Your task to perform on an android device: Go to wifi settings Image 0: 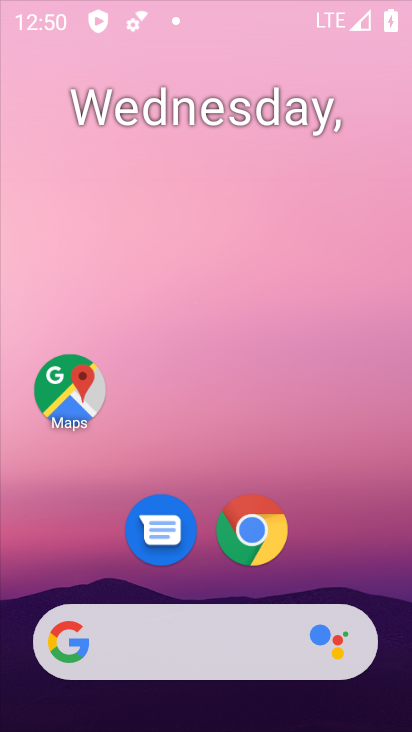
Step 0: click (318, 164)
Your task to perform on an android device: Go to wifi settings Image 1: 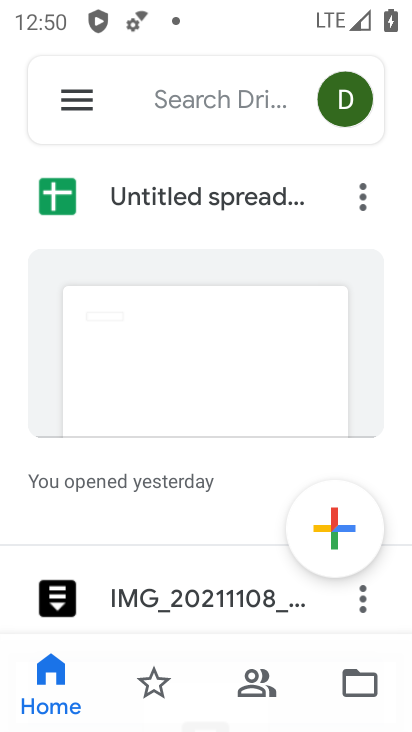
Step 1: press home button
Your task to perform on an android device: Go to wifi settings Image 2: 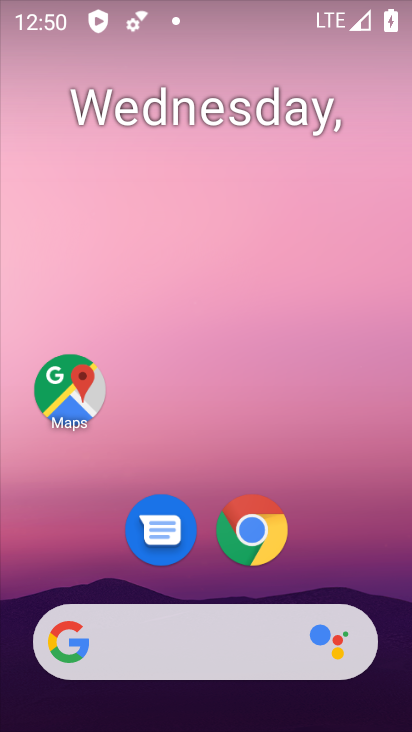
Step 2: drag from (376, 554) to (347, 177)
Your task to perform on an android device: Go to wifi settings Image 3: 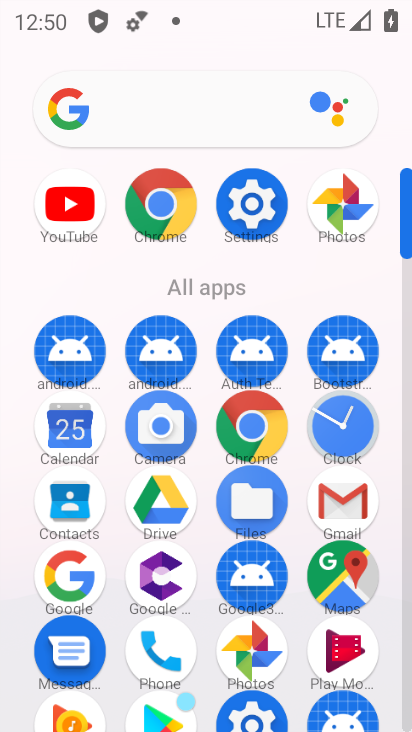
Step 3: click (249, 219)
Your task to perform on an android device: Go to wifi settings Image 4: 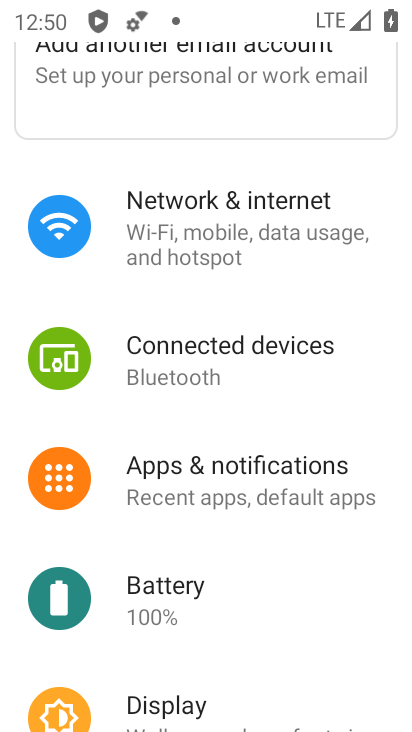
Step 4: click (195, 226)
Your task to perform on an android device: Go to wifi settings Image 5: 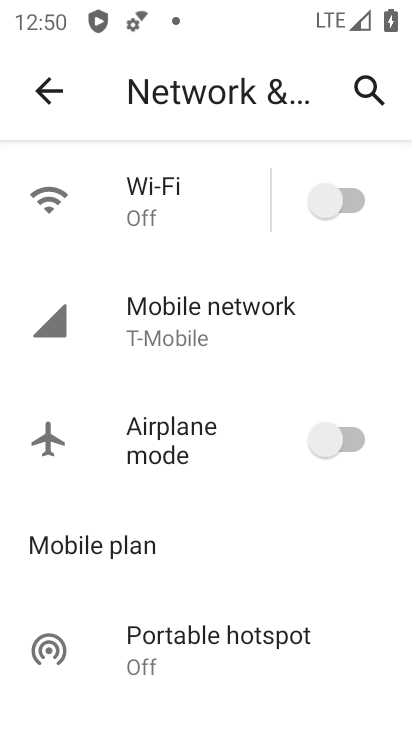
Step 5: click (231, 214)
Your task to perform on an android device: Go to wifi settings Image 6: 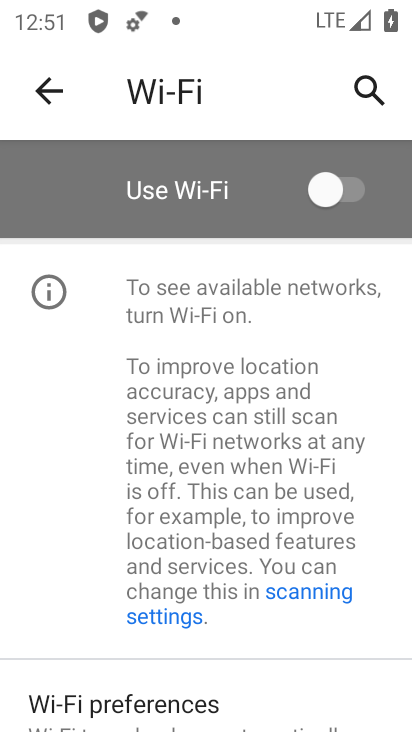
Step 6: task complete